Your task to perform on an android device: Open location settings Image 0: 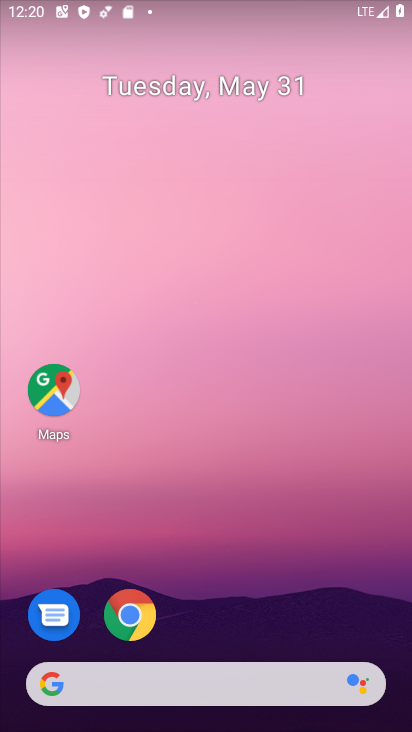
Step 0: drag from (215, 605) to (237, 218)
Your task to perform on an android device: Open location settings Image 1: 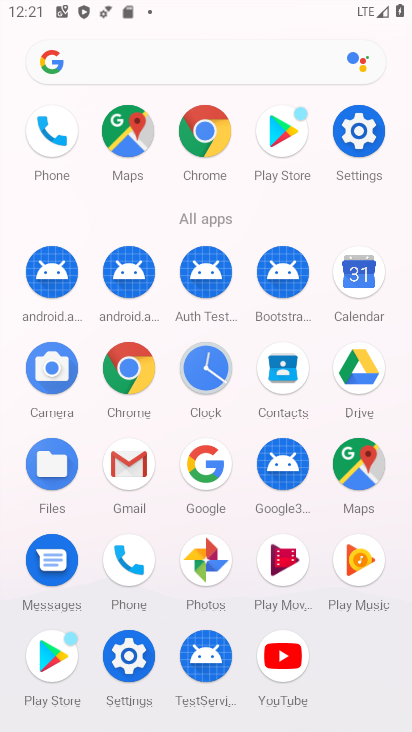
Step 1: click (372, 152)
Your task to perform on an android device: Open location settings Image 2: 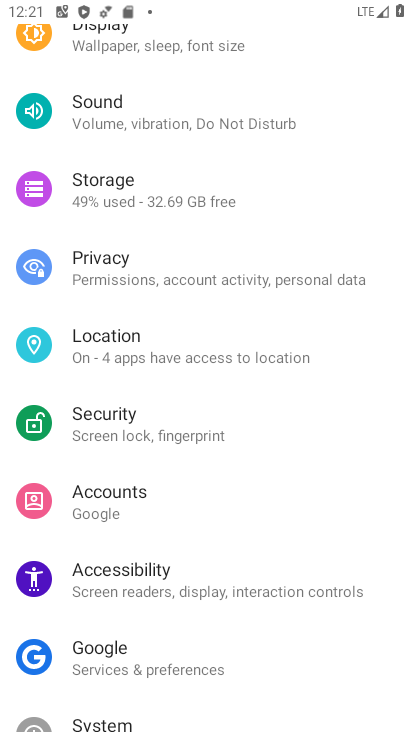
Step 2: click (168, 360)
Your task to perform on an android device: Open location settings Image 3: 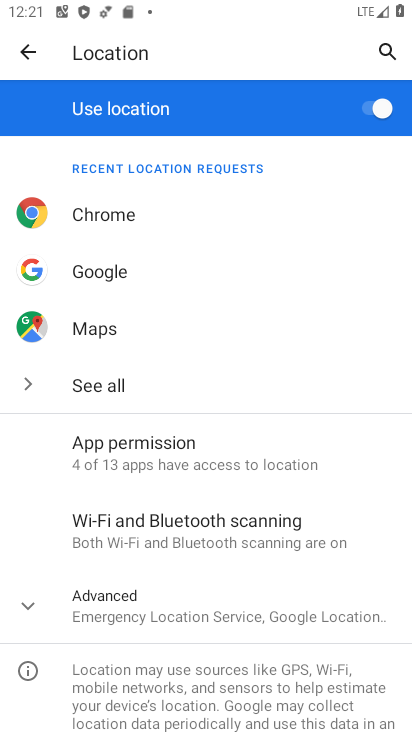
Step 3: task complete